Your task to perform on an android device: Open calendar and show me the first week of next month Image 0: 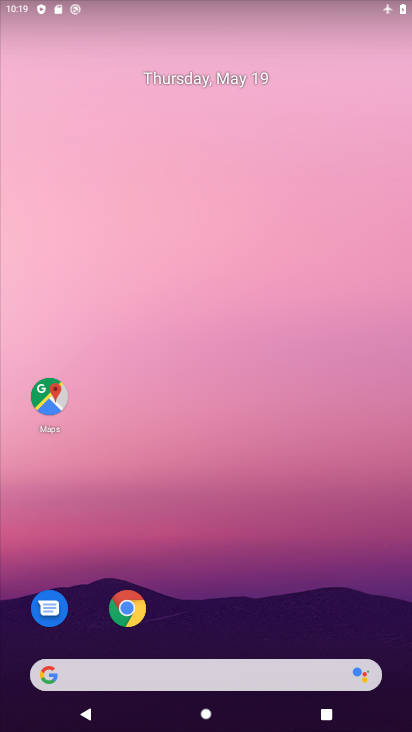
Step 0: drag from (398, 692) to (385, 363)
Your task to perform on an android device: Open calendar and show me the first week of next month Image 1: 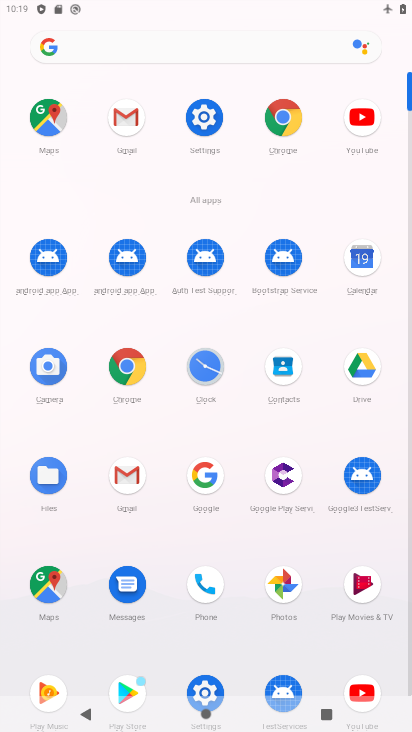
Step 1: click (208, 117)
Your task to perform on an android device: Open calendar and show me the first week of next month Image 2: 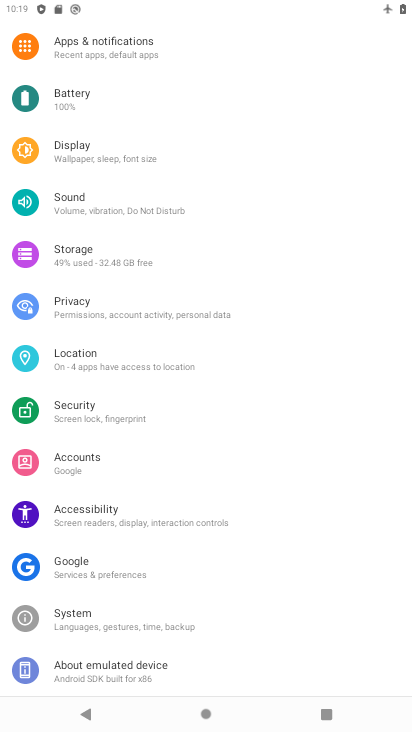
Step 2: drag from (279, 171) to (275, 506)
Your task to perform on an android device: Open calendar and show me the first week of next month Image 3: 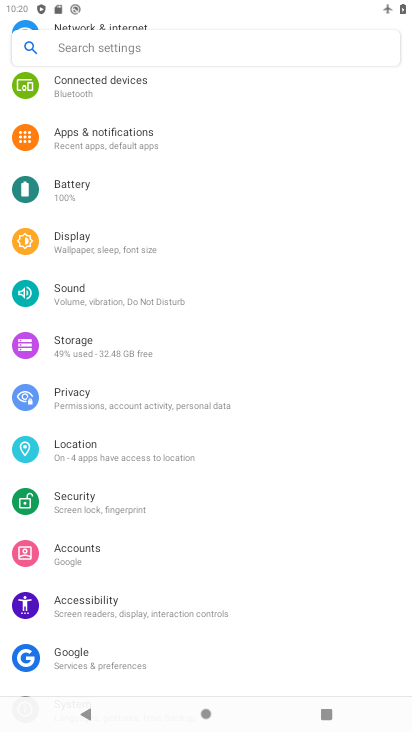
Step 3: drag from (301, 226) to (287, 576)
Your task to perform on an android device: Open calendar and show me the first week of next month Image 4: 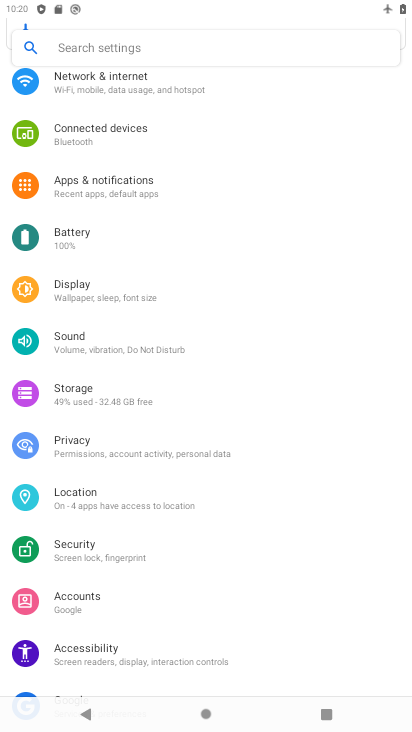
Step 4: drag from (278, 153) to (300, 512)
Your task to perform on an android device: Open calendar and show me the first week of next month Image 5: 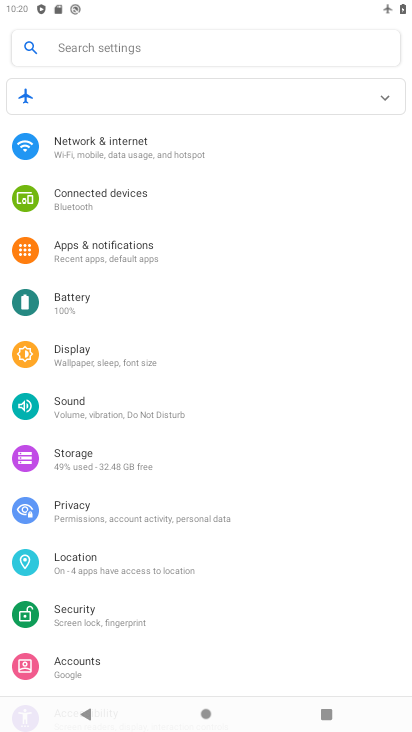
Step 5: click (92, 140)
Your task to perform on an android device: Open calendar and show me the first week of next month Image 6: 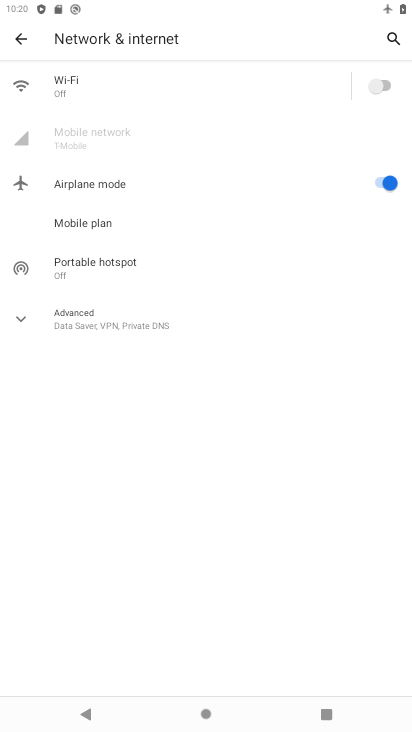
Step 6: press home button
Your task to perform on an android device: Open calendar and show me the first week of next month Image 7: 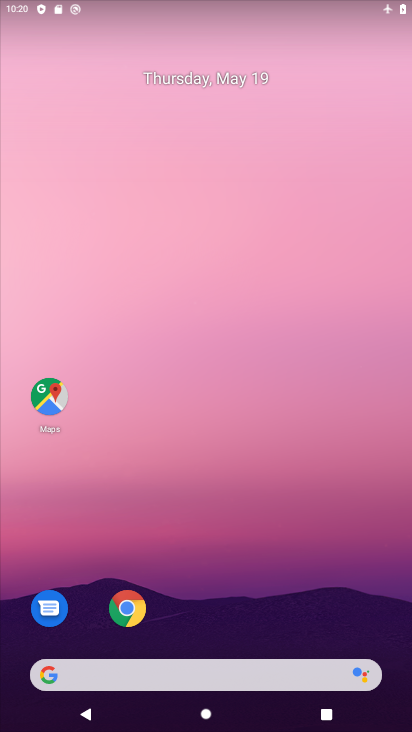
Step 7: drag from (387, 681) to (376, 239)
Your task to perform on an android device: Open calendar and show me the first week of next month Image 8: 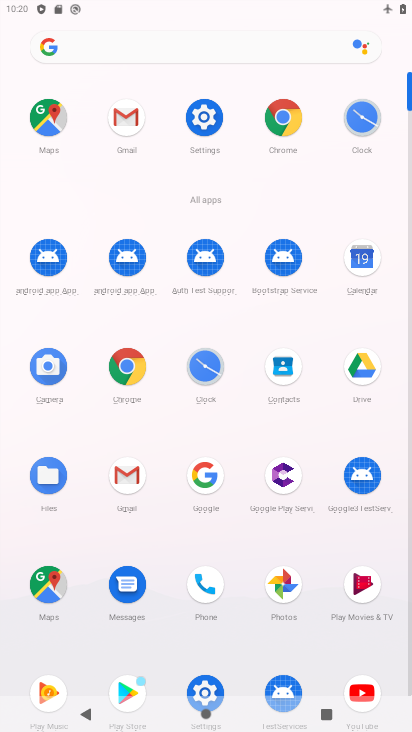
Step 8: click (354, 265)
Your task to perform on an android device: Open calendar and show me the first week of next month Image 9: 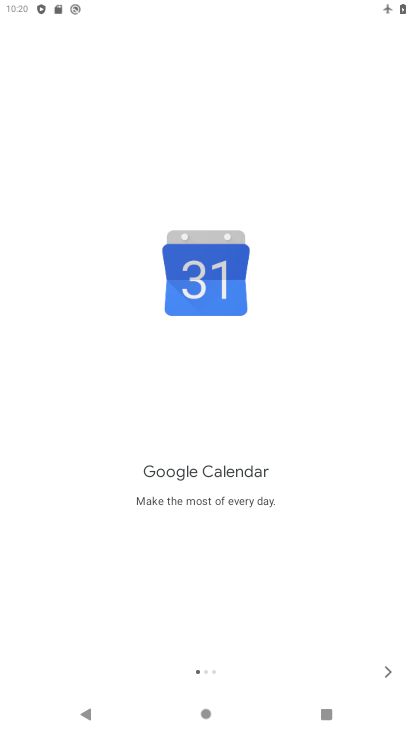
Step 9: click (384, 668)
Your task to perform on an android device: Open calendar and show me the first week of next month Image 10: 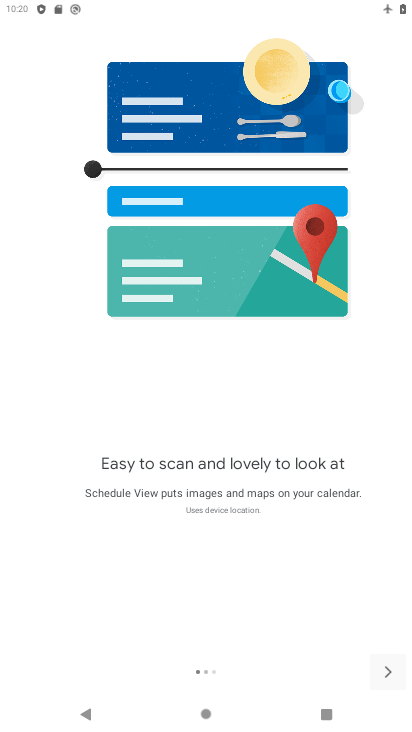
Step 10: click (385, 668)
Your task to perform on an android device: Open calendar and show me the first week of next month Image 11: 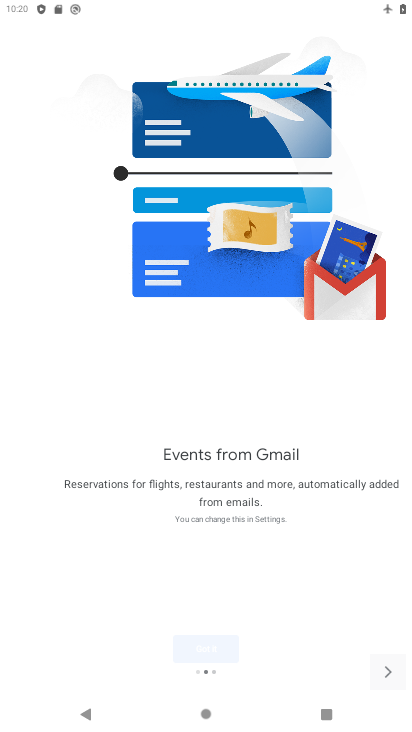
Step 11: click (385, 668)
Your task to perform on an android device: Open calendar and show me the first week of next month Image 12: 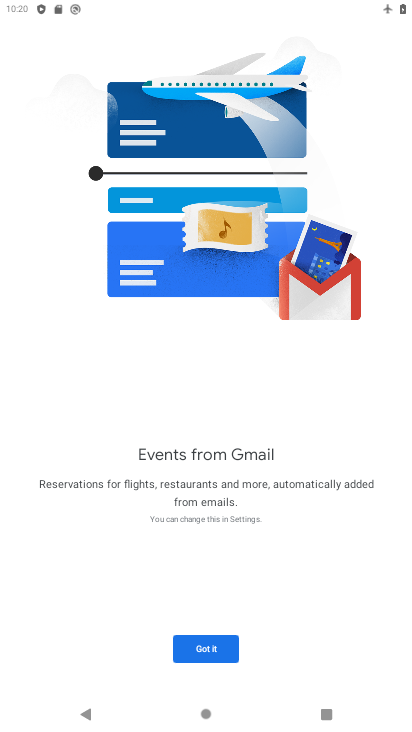
Step 12: click (232, 643)
Your task to perform on an android device: Open calendar and show me the first week of next month Image 13: 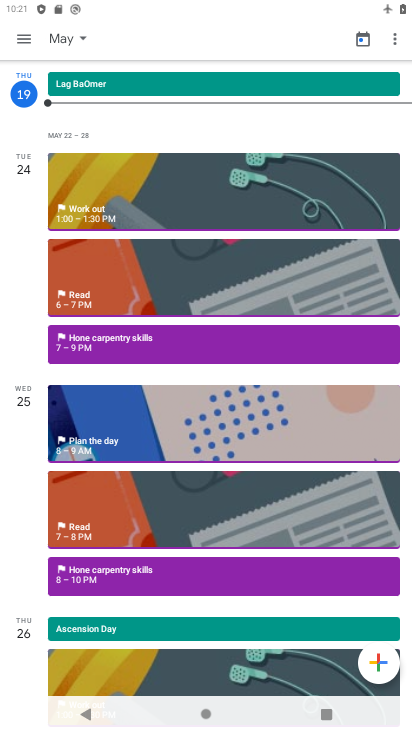
Step 13: click (77, 36)
Your task to perform on an android device: Open calendar and show me the first week of next month Image 14: 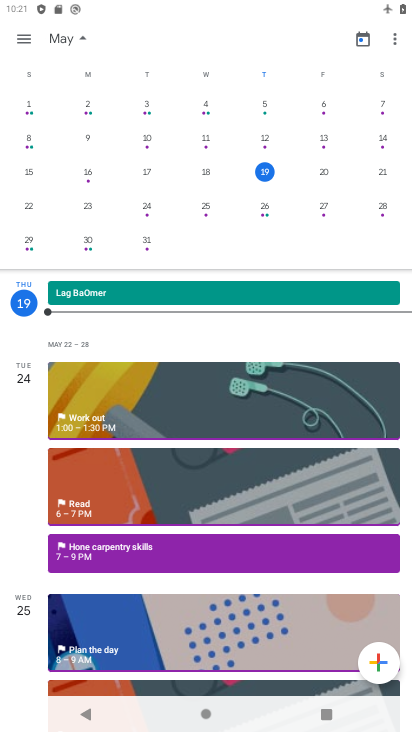
Step 14: drag from (401, 118) to (58, 94)
Your task to perform on an android device: Open calendar and show me the first week of next month Image 15: 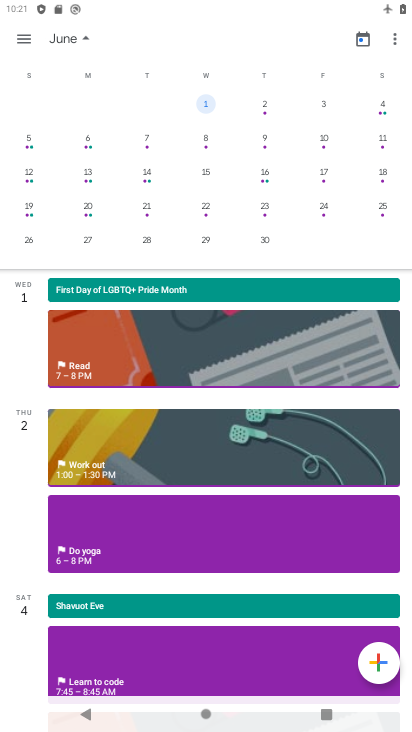
Step 15: click (318, 98)
Your task to perform on an android device: Open calendar and show me the first week of next month Image 16: 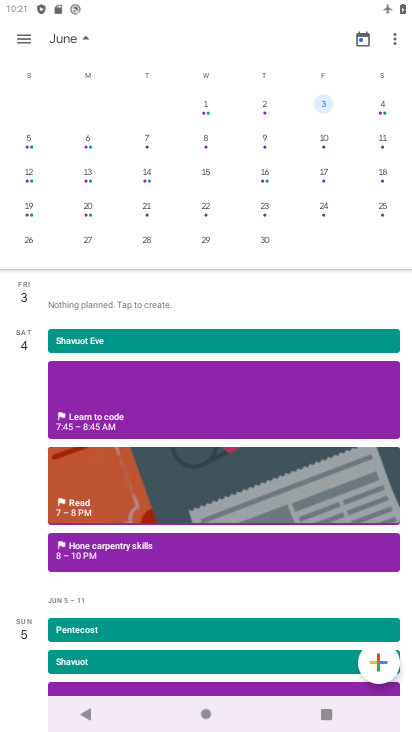
Step 16: click (17, 39)
Your task to perform on an android device: Open calendar and show me the first week of next month Image 17: 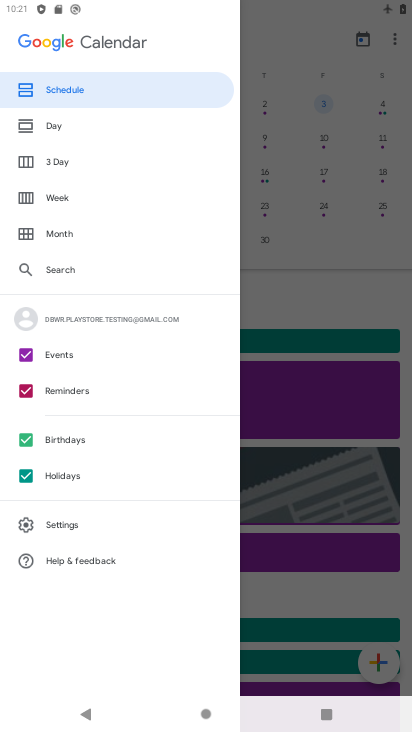
Step 17: click (28, 195)
Your task to perform on an android device: Open calendar and show me the first week of next month Image 18: 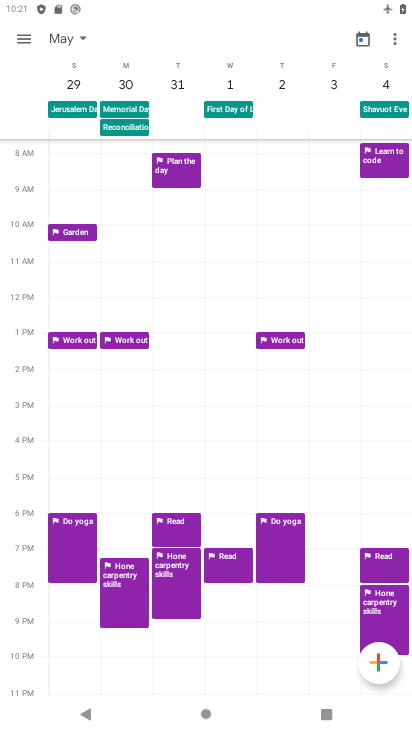
Step 18: task complete